Your task to perform on an android device: set the stopwatch Image 0: 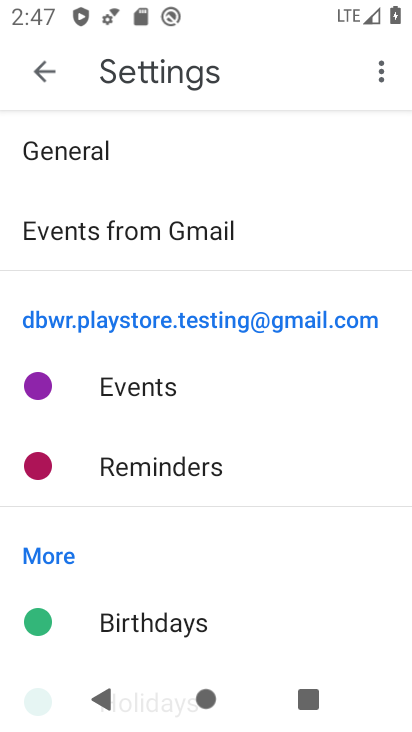
Step 0: press home button
Your task to perform on an android device: set the stopwatch Image 1: 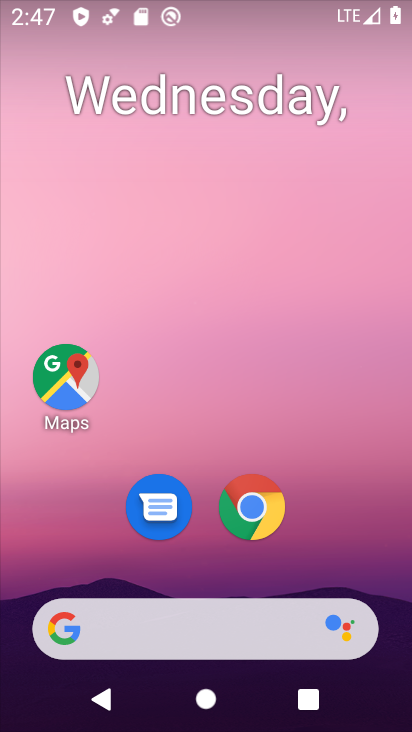
Step 1: drag from (327, 344) to (327, 100)
Your task to perform on an android device: set the stopwatch Image 2: 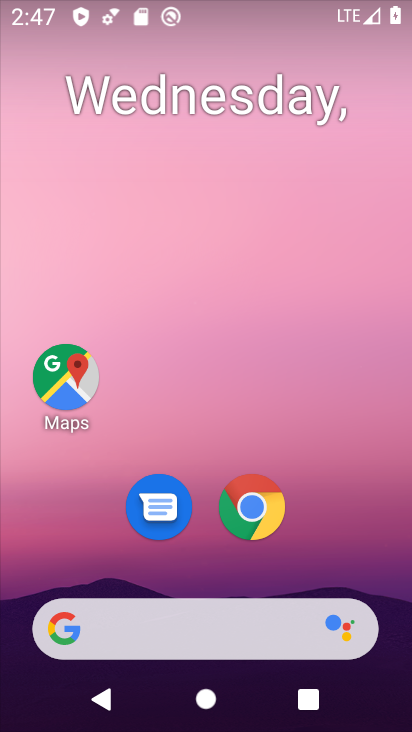
Step 2: drag from (306, 530) to (308, 45)
Your task to perform on an android device: set the stopwatch Image 3: 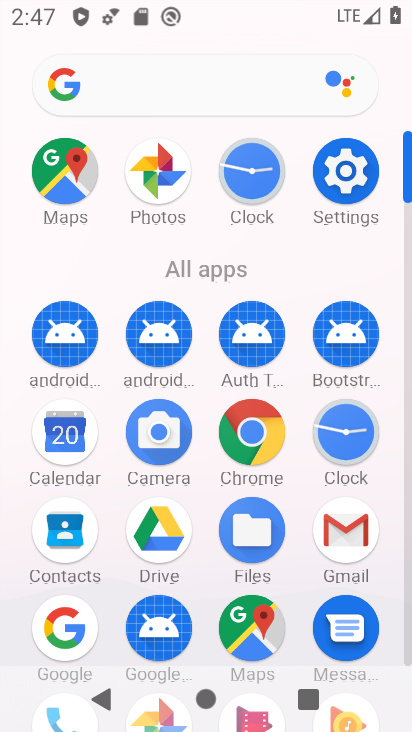
Step 3: click (348, 425)
Your task to perform on an android device: set the stopwatch Image 4: 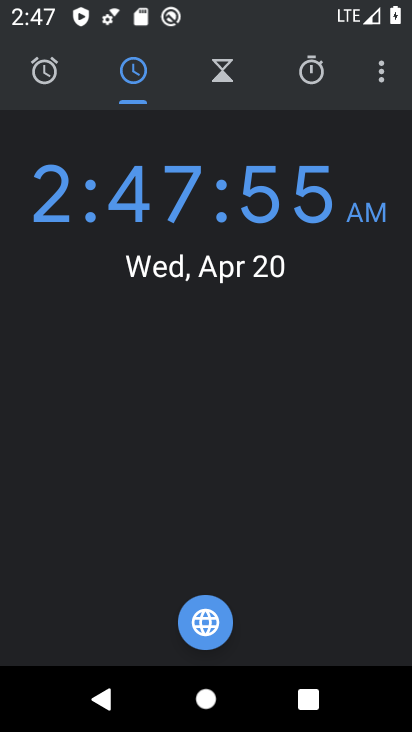
Step 4: click (313, 65)
Your task to perform on an android device: set the stopwatch Image 5: 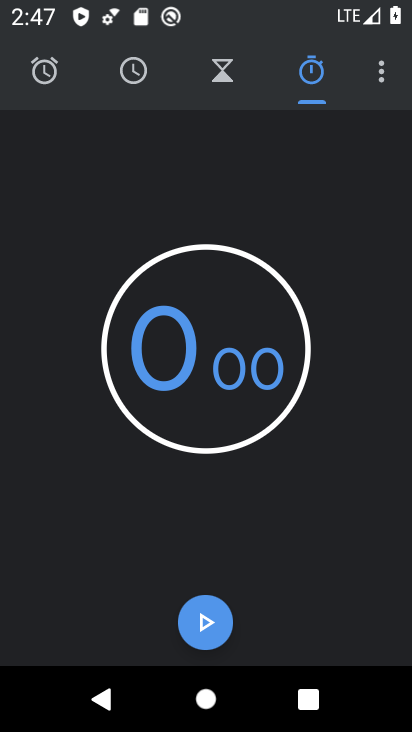
Step 5: click (206, 621)
Your task to perform on an android device: set the stopwatch Image 6: 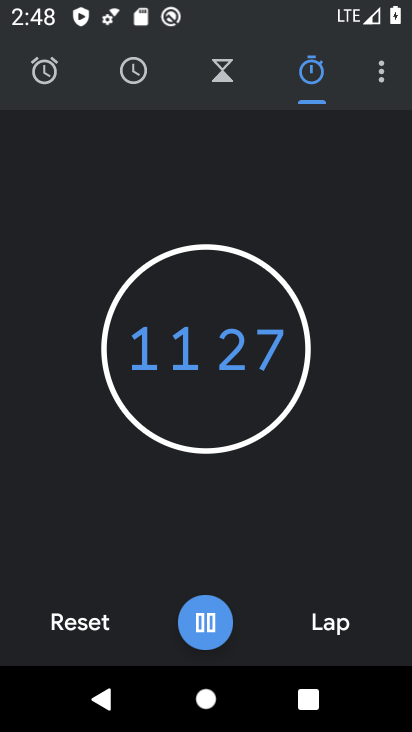
Step 6: task complete